Your task to perform on an android device: turn off picture-in-picture Image 0: 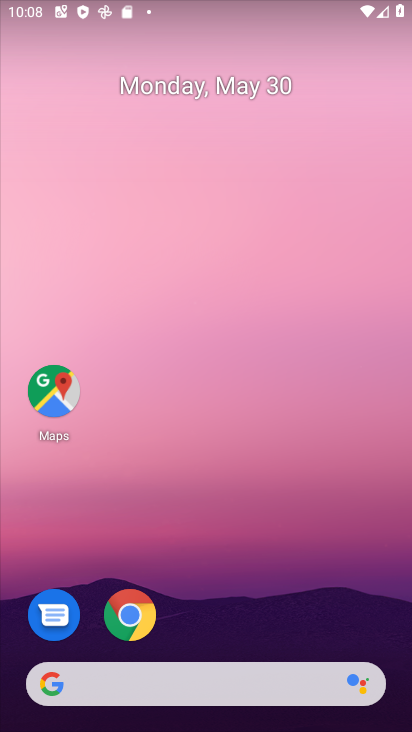
Step 0: drag from (324, 465) to (234, 29)
Your task to perform on an android device: turn off picture-in-picture Image 1: 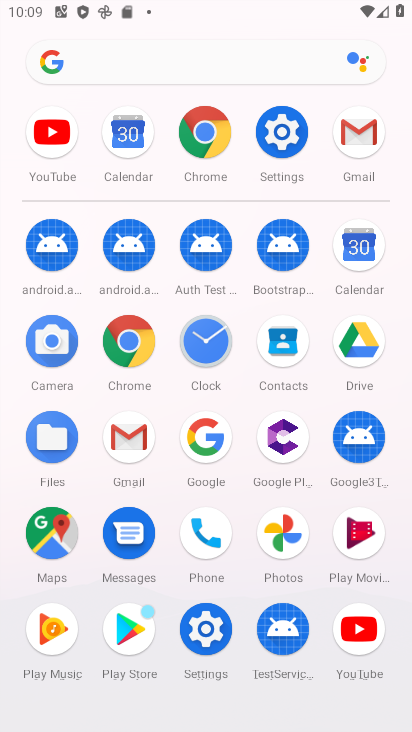
Step 1: click (291, 148)
Your task to perform on an android device: turn off picture-in-picture Image 2: 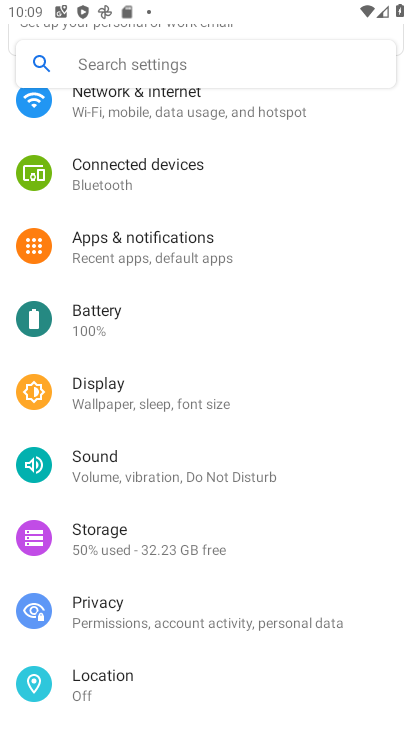
Step 2: click (166, 234)
Your task to perform on an android device: turn off picture-in-picture Image 3: 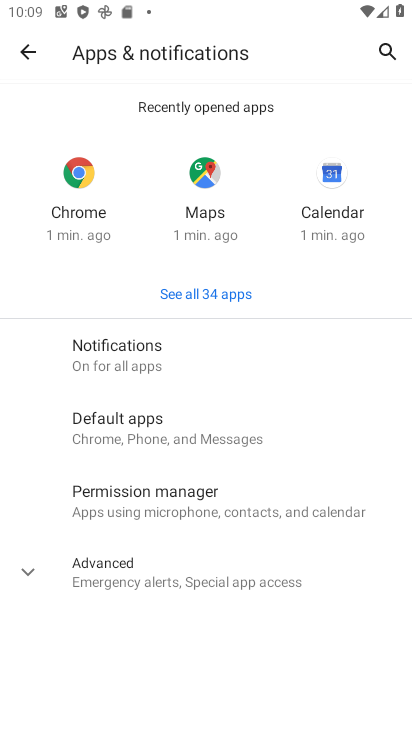
Step 3: click (210, 572)
Your task to perform on an android device: turn off picture-in-picture Image 4: 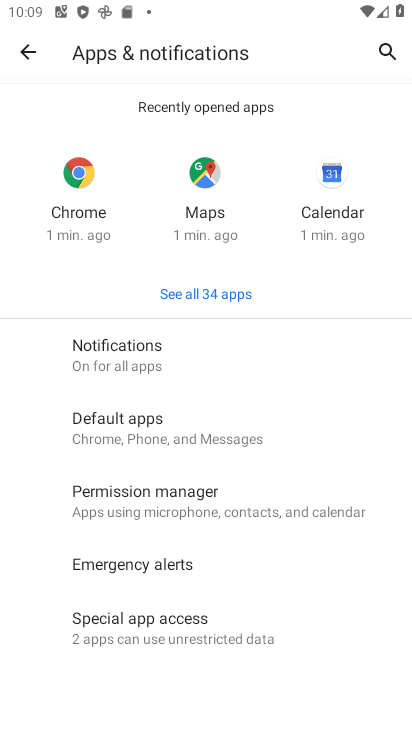
Step 4: click (228, 634)
Your task to perform on an android device: turn off picture-in-picture Image 5: 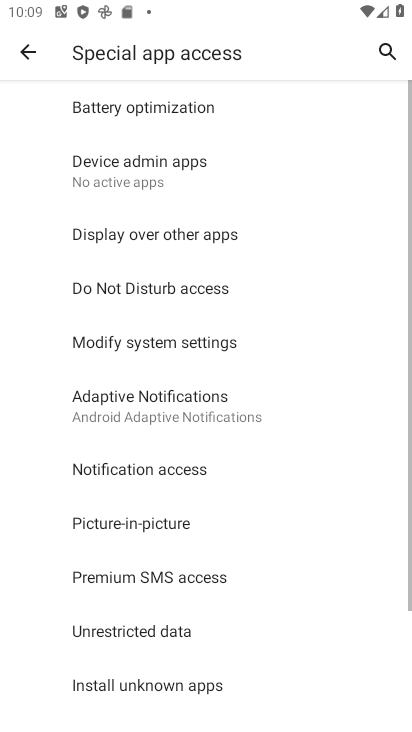
Step 5: drag from (219, 584) to (248, 366)
Your task to perform on an android device: turn off picture-in-picture Image 6: 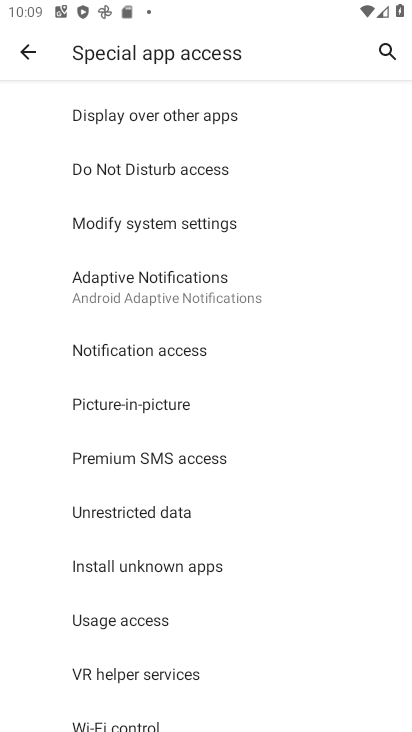
Step 6: click (140, 398)
Your task to perform on an android device: turn off picture-in-picture Image 7: 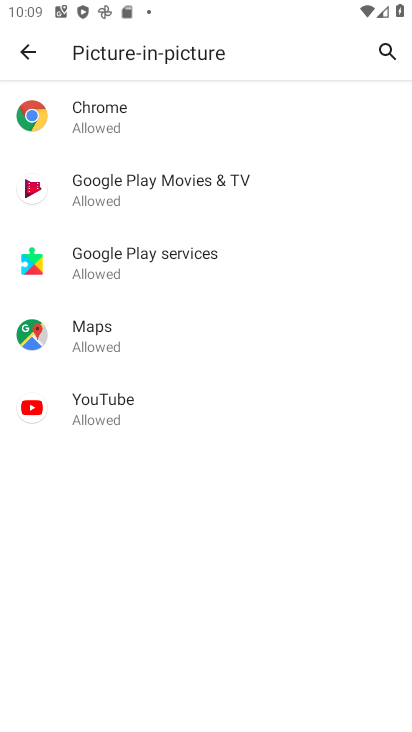
Step 7: click (270, 197)
Your task to perform on an android device: turn off picture-in-picture Image 8: 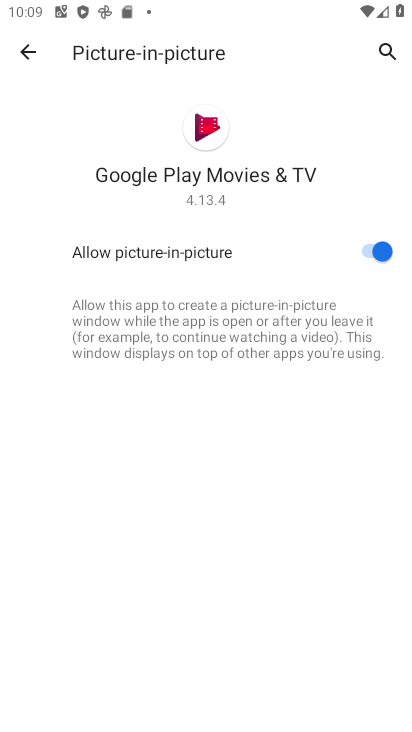
Step 8: click (388, 258)
Your task to perform on an android device: turn off picture-in-picture Image 9: 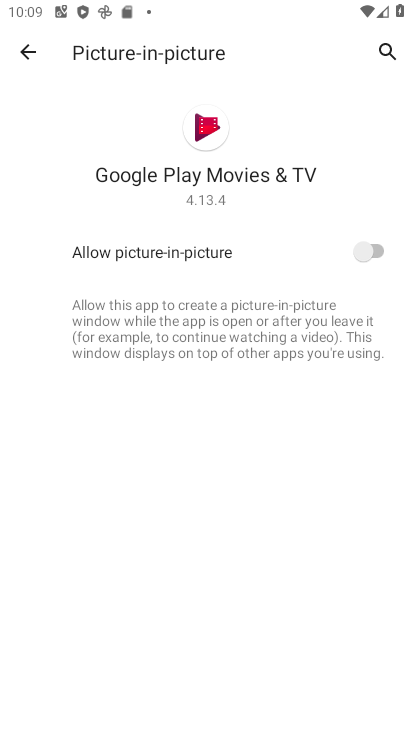
Step 9: task complete